Your task to perform on an android device: check android version Image 0: 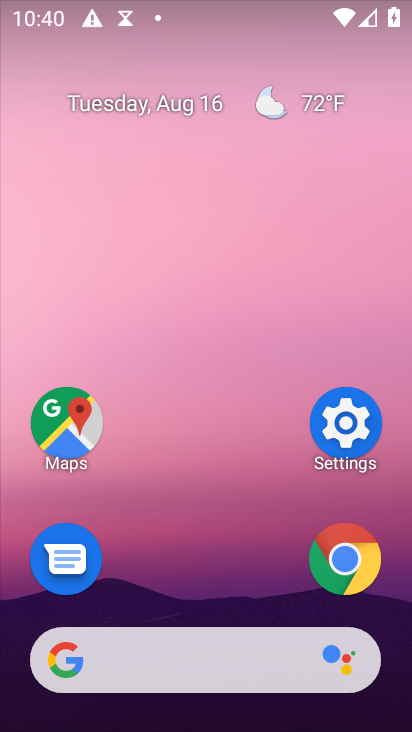
Step 0: click (334, 421)
Your task to perform on an android device: check android version Image 1: 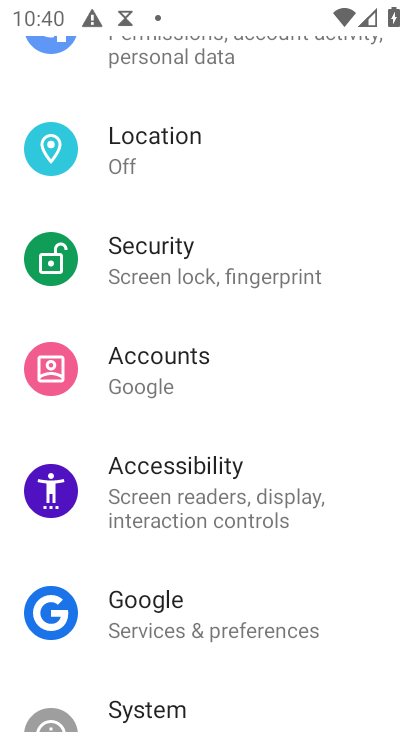
Step 1: drag from (274, 674) to (328, 58)
Your task to perform on an android device: check android version Image 2: 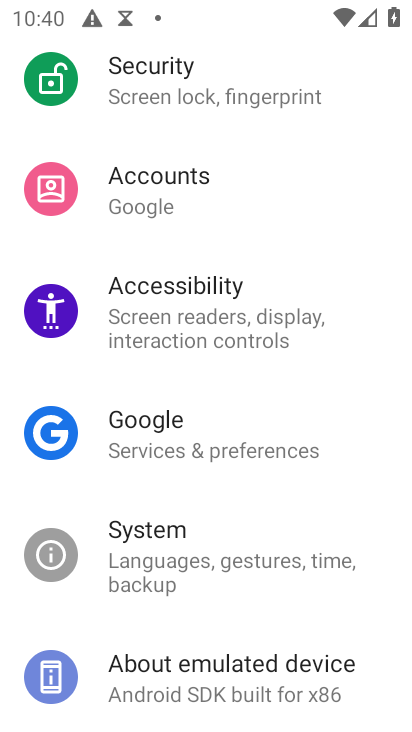
Step 2: click (233, 664)
Your task to perform on an android device: check android version Image 3: 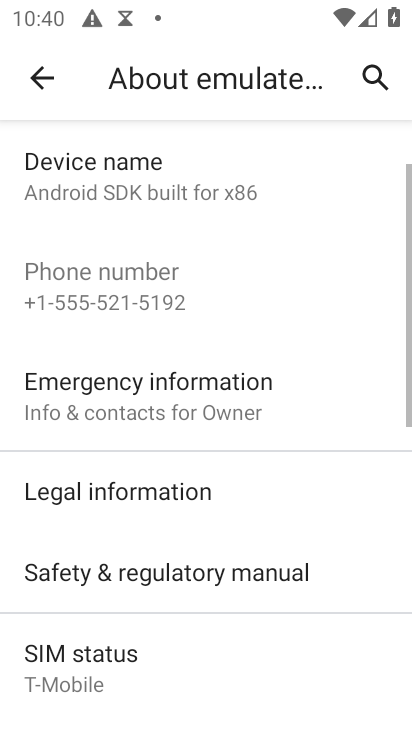
Step 3: drag from (222, 621) to (247, 122)
Your task to perform on an android device: check android version Image 4: 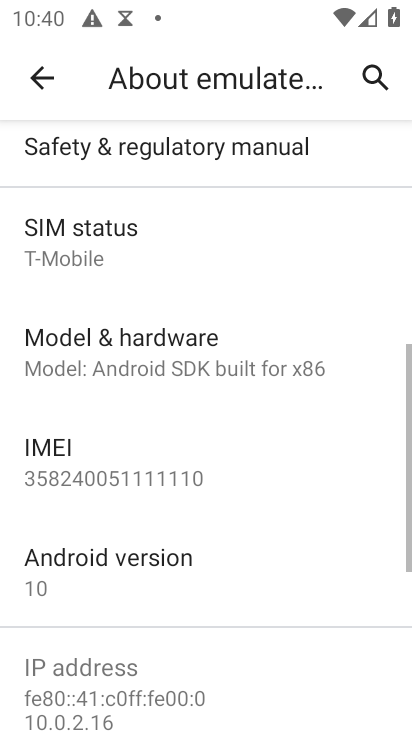
Step 4: click (167, 558)
Your task to perform on an android device: check android version Image 5: 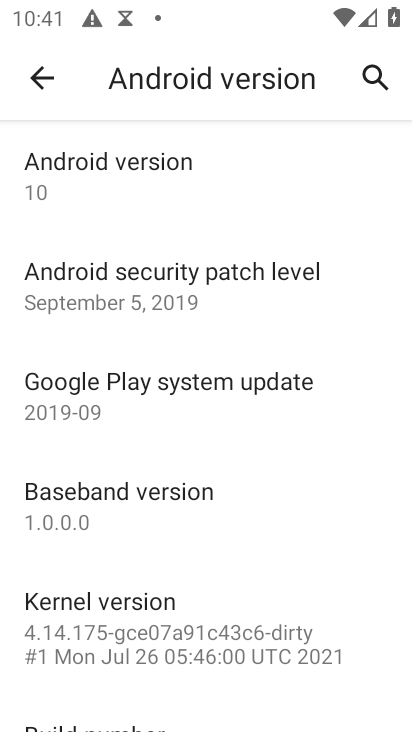
Step 5: task complete